Your task to perform on an android device: See recent photos Image 0: 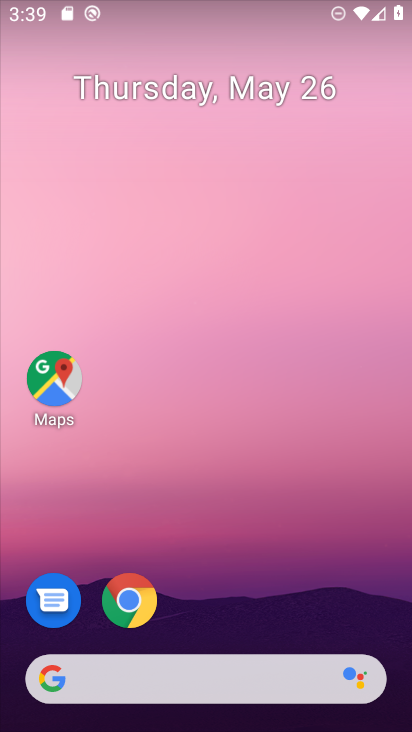
Step 0: drag from (214, 552) to (181, 71)
Your task to perform on an android device: See recent photos Image 1: 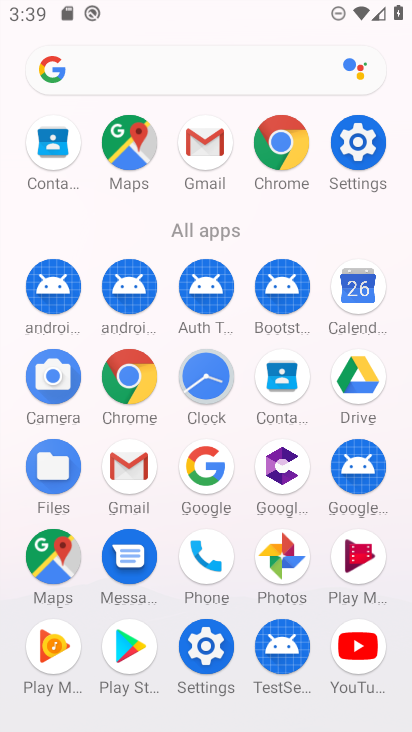
Step 1: drag from (11, 623) to (24, 234)
Your task to perform on an android device: See recent photos Image 2: 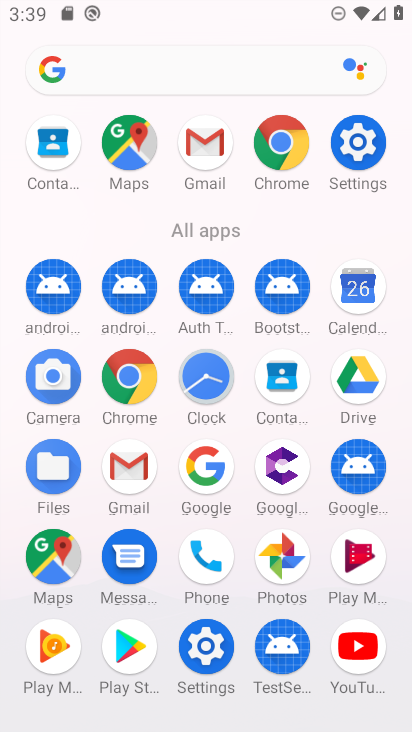
Step 2: click (130, 373)
Your task to perform on an android device: See recent photos Image 3: 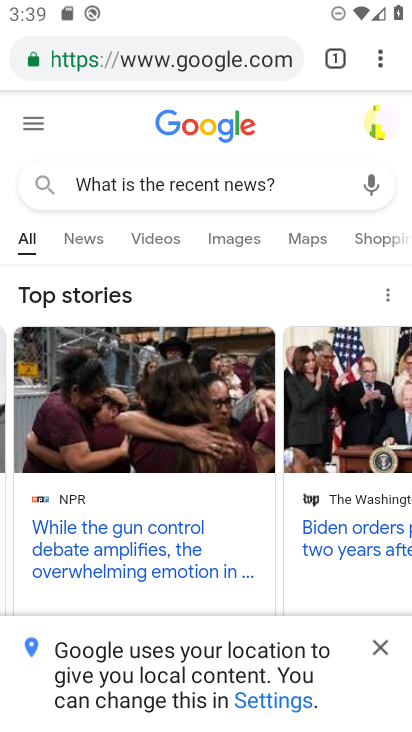
Step 3: click (198, 52)
Your task to perform on an android device: See recent photos Image 4: 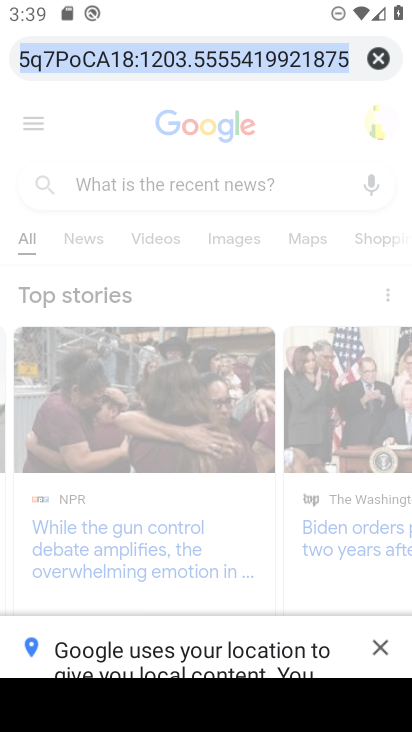
Step 4: click (374, 56)
Your task to perform on an android device: See recent photos Image 5: 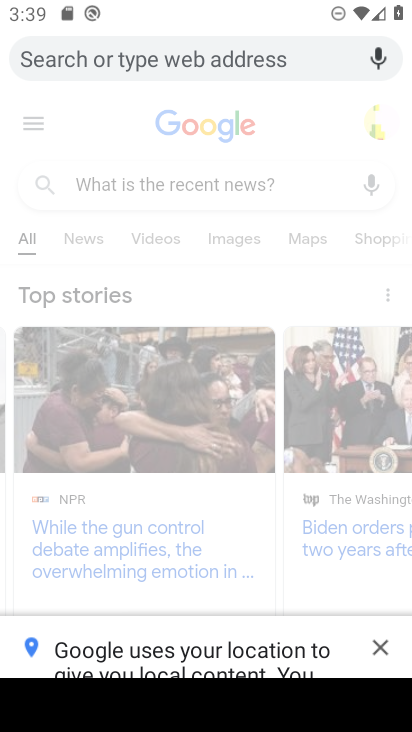
Step 5: type "See recent photos"
Your task to perform on an android device: See recent photos Image 6: 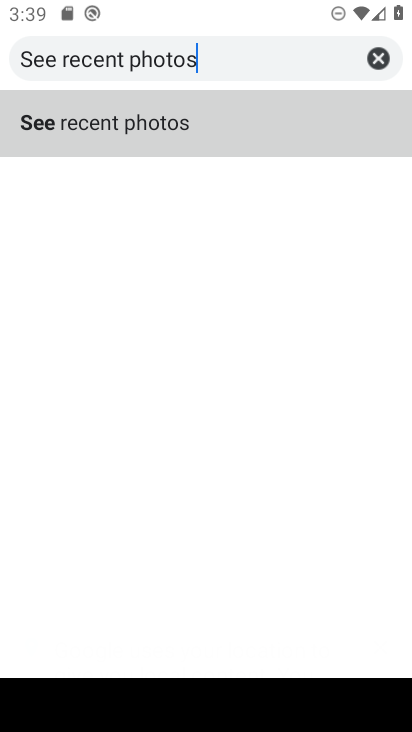
Step 6: type ""
Your task to perform on an android device: See recent photos Image 7: 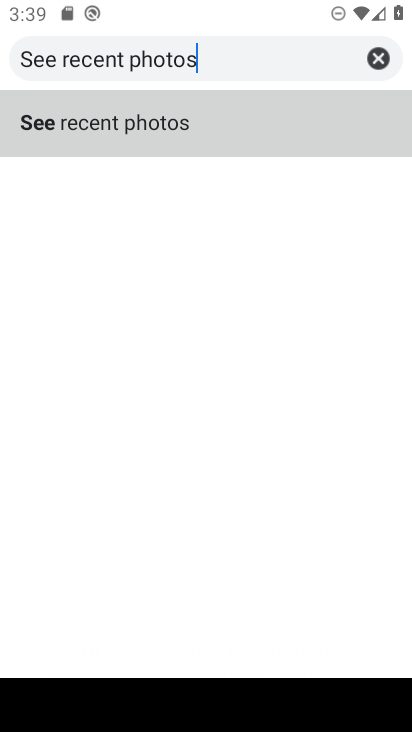
Step 7: click (162, 123)
Your task to perform on an android device: See recent photos Image 8: 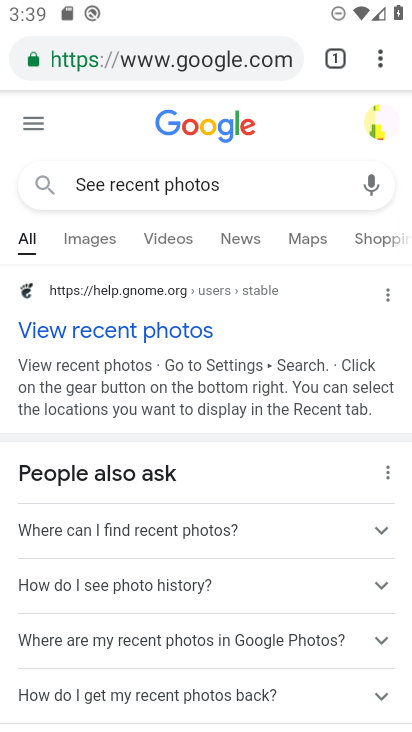
Step 8: click (236, 239)
Your task to perform on an android device: See recent photos Image 9: 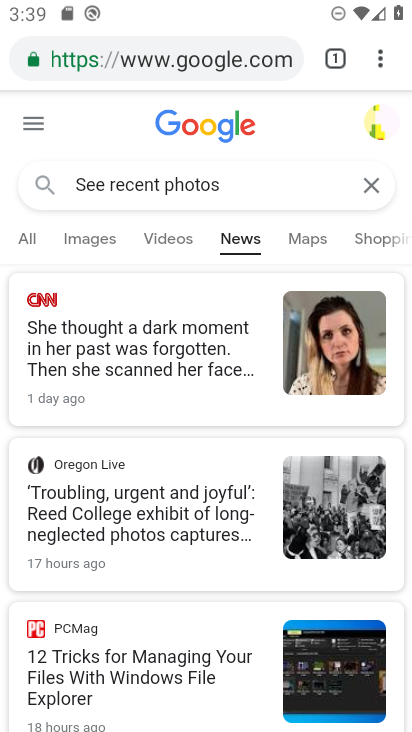
Step 9: task complete